Your task to perform on an android device: open a bookmark in the chrome app Image 0: 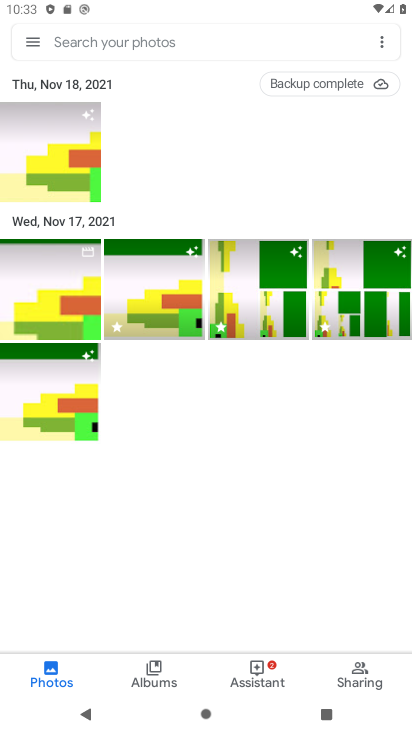
Step 0: press home button
Your task to perform on an android device: open a bookmark in the chrome app Image 1: 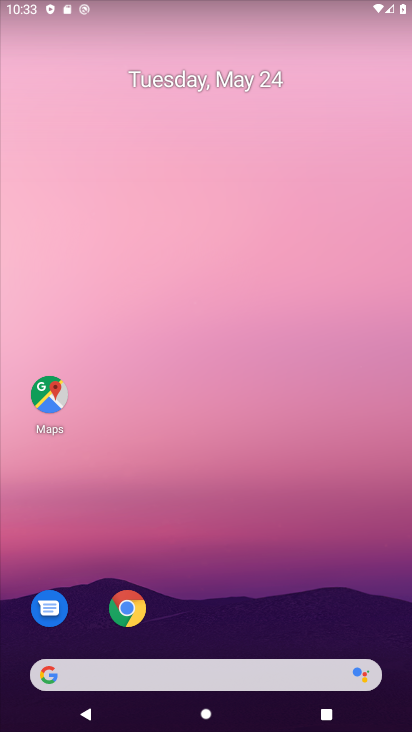
Step 1: click (126, 609)
Your task to perform on an android device: open a bookmark in the chrome app Image 2: 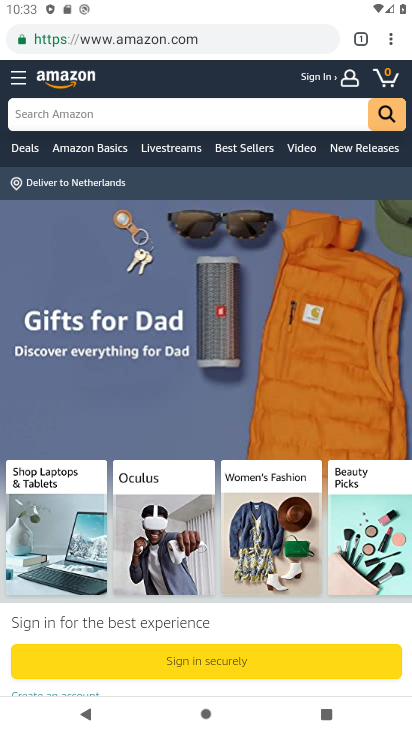
Step 2: click (391, 39)
Your task to perform on an android device: open a bookmark in the chrome app Image 3: 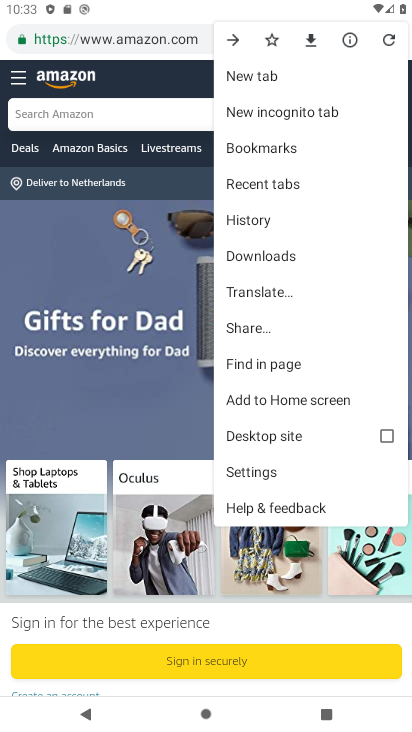
Step 3: click (254, 148)
Your task to perform on an android device: open a bookmark in the chrome app Image 4: 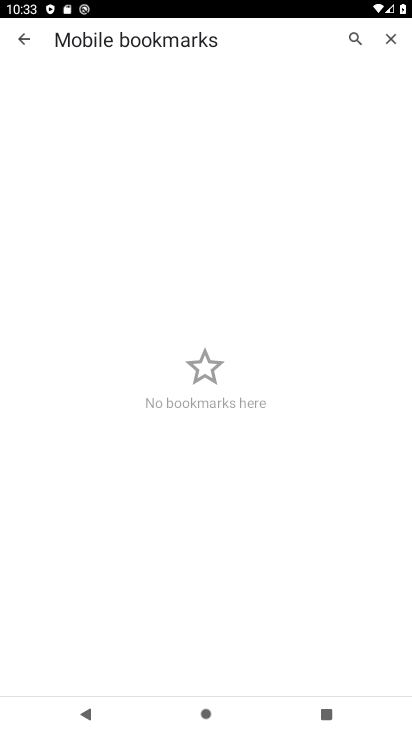
Step 4: task complete